Your task to perform on an android device: open chrome and create a bookmark for the current page Image 0: 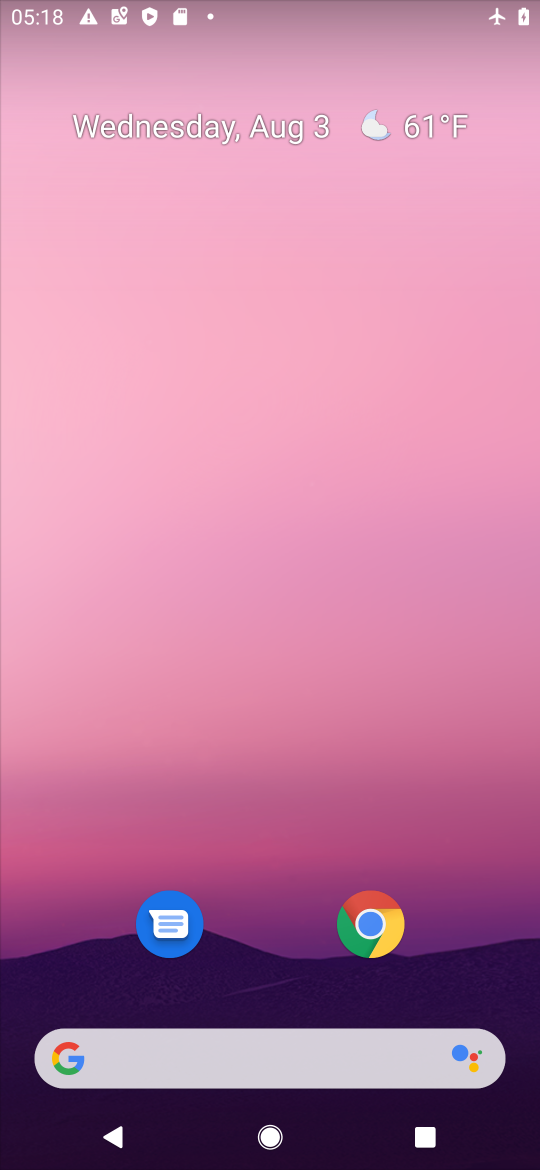
Step 0: click (348, 941)
Your task to perform on an android device: open chrome and create a bookmark for the current page Image 1: 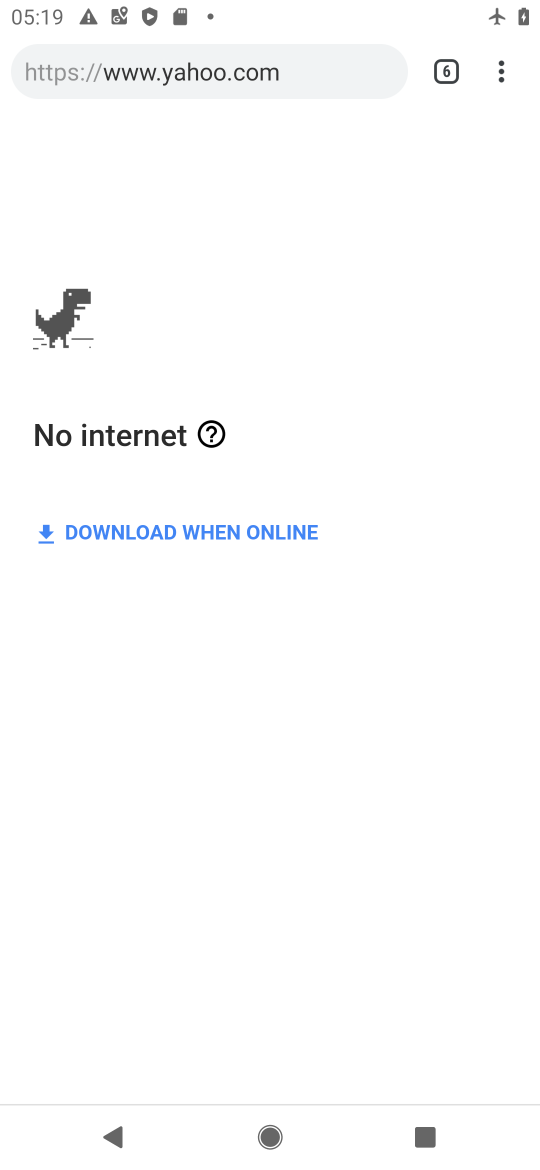
Step 1: task complete